Your task to perform on an android device: Go to internet settings Image 0: 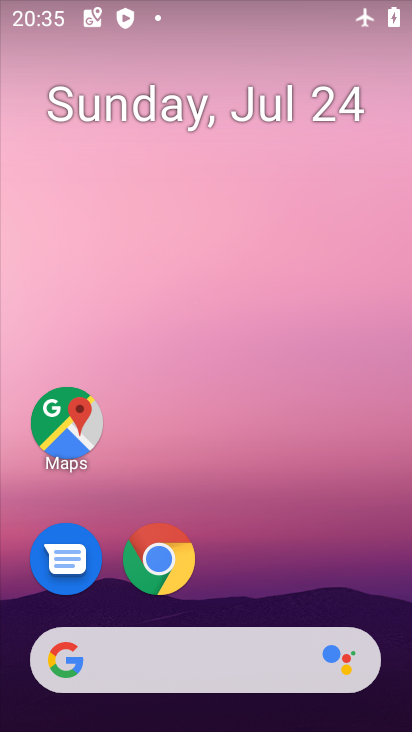
Step 0: press home button
Your task to perform on an android device: Go to internet settings Image 1: 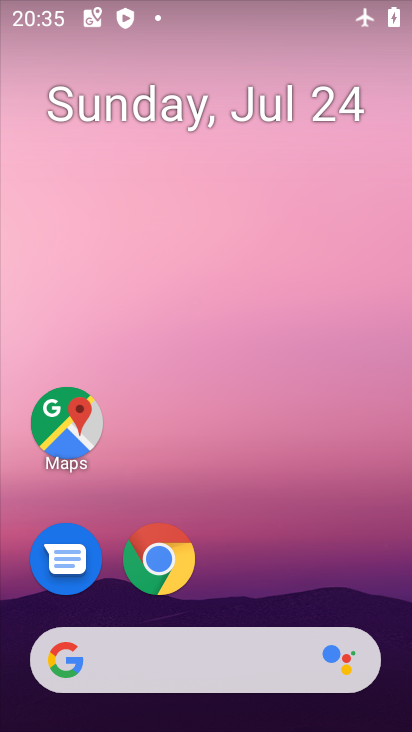
Step 1: drag from (331, 546) to (353, 72)
Your task to perform on an android device: Go to internet settings Image 2: 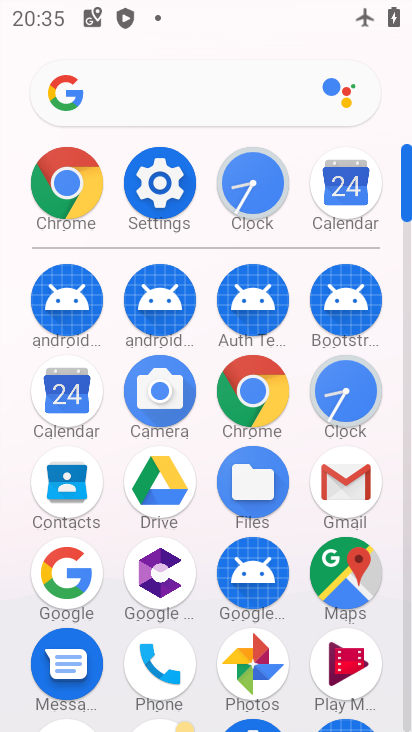
Step 2: click (170, 186)
Your task to perform on an android device: Go to internet settings Image 3: 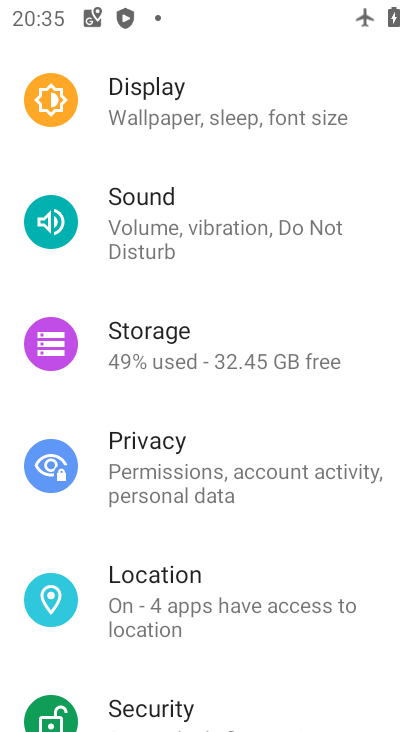
Step 3: drag from (374, 293) to (377, 395)
Your task to perform on an android device: Go to internet settings Image 4: 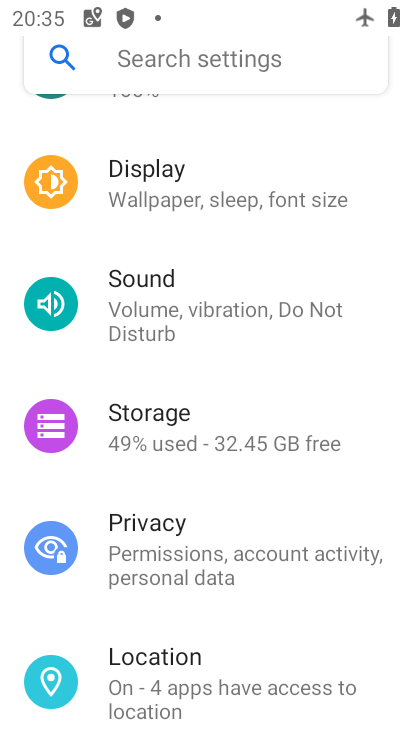
Step 4: drag from (369, 297) to (372, 398)
Your task to perform on an android device: Go to internet settings Image 5: 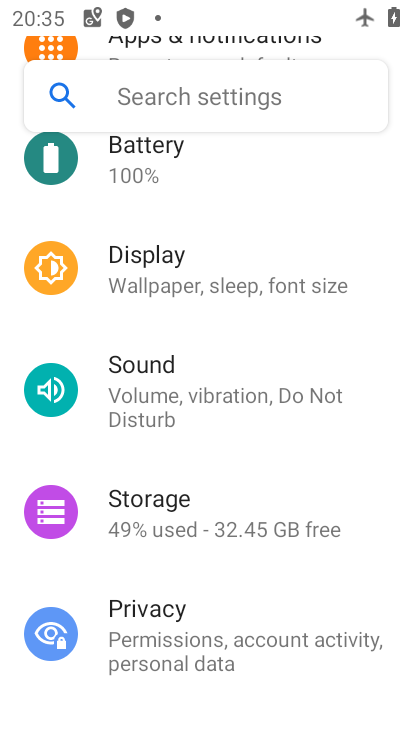
Step 5: drag from (364, 269) to (364, 366)
Your task to perform on an android device: Go to internet settings Image 6: 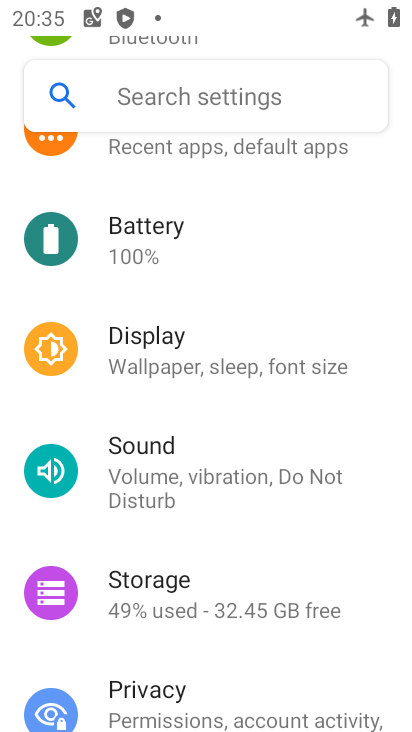
Step 6: drag from (371, 265) to (387, 364)
Your task to perform on an android device: Go to internet settings Image 7: 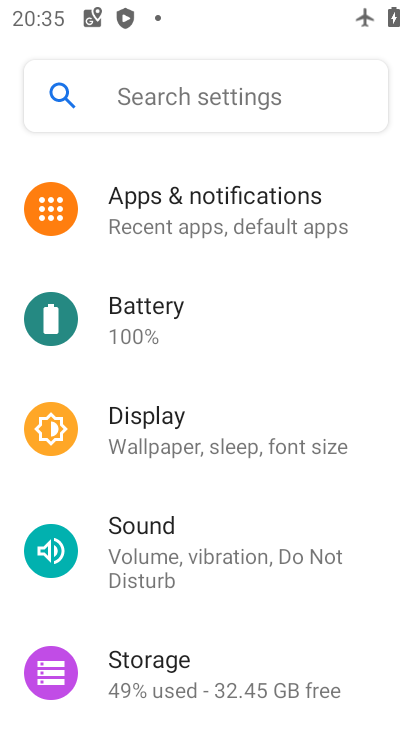
Step 7: drag from (366, 254) to (365, 372)
Your task to perform on an android device: Go to internet settings Image 8: 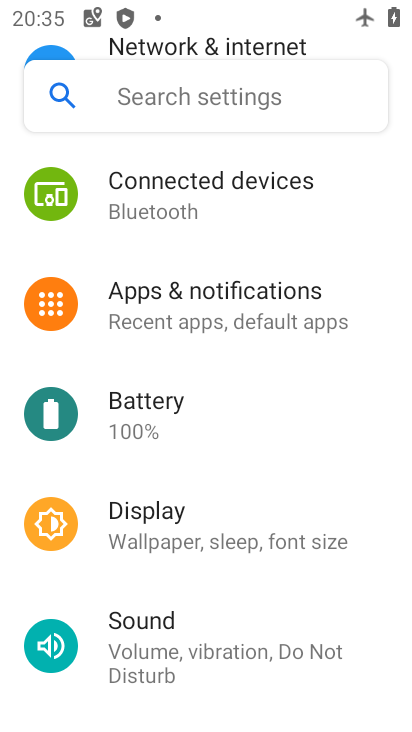
Step 8: drag from (360, 220) to (359, 347)
Your task to perform on an android device: Go to internet settings Image 9: 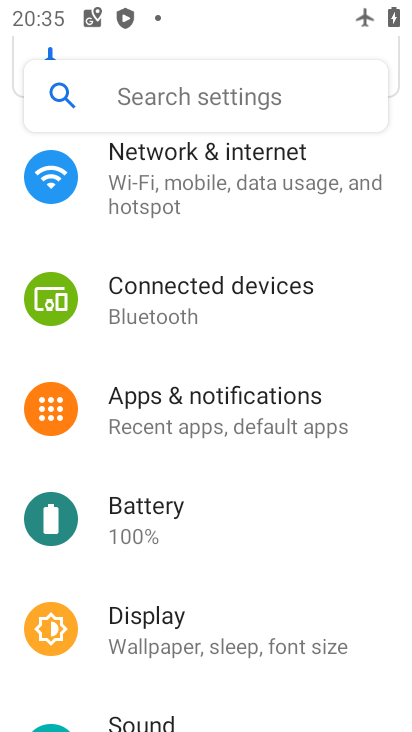
Step 9: drag from (353, 236) to (354, 363)
Your task to perform on an android device: Go to internet settings Image 10: 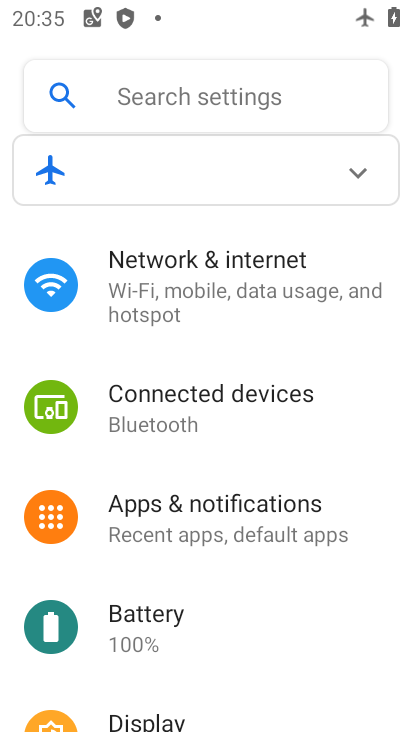
Step 10: drag from (357, 232) to (352, 429)
Your task to perform on an android device: Go to internet settings Image 11: 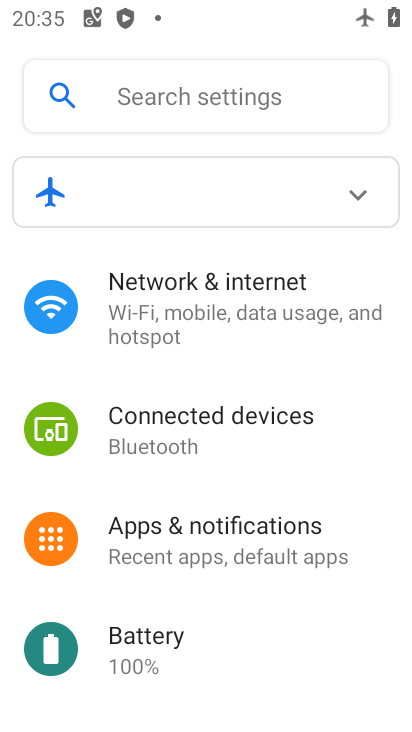
Step 11: click (295, 300)
Your task to perform on an android device: Go to internet settings Image 12: 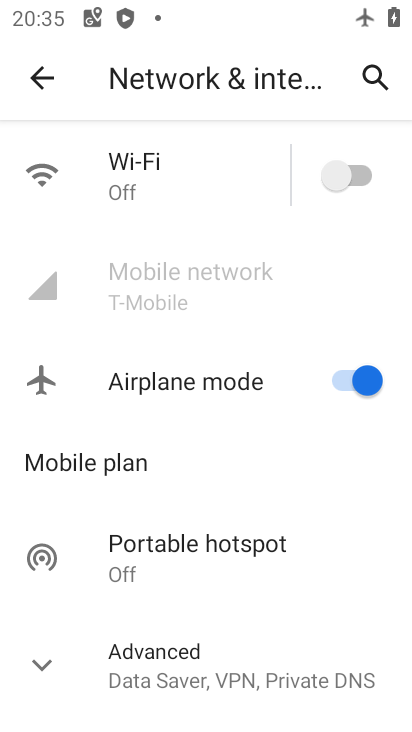
Step 12: task complete